Your task to perform on an android device: Open Chrome and go to settings Image 0: 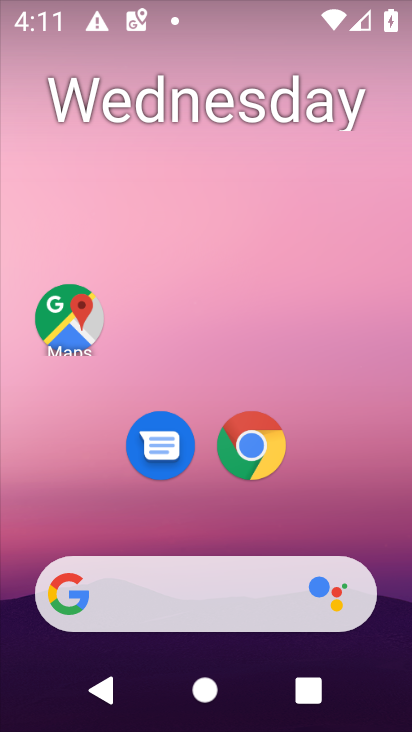
Step 0: click (397, 534)
Your task to perform on an android device: Open Chrome and go to settings Image 1: 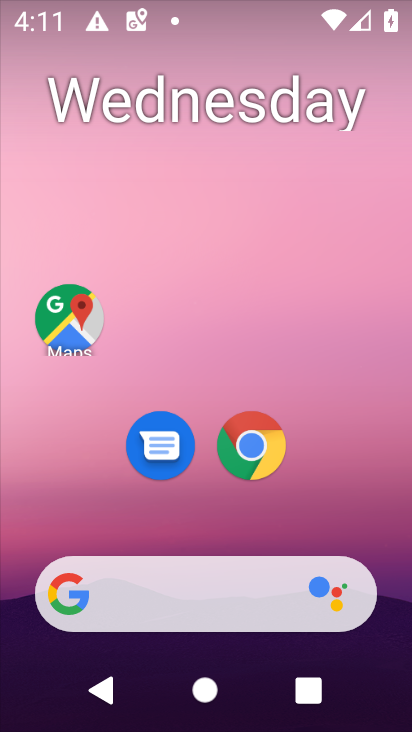
Step 1: drag from (355, 499) to (335, 0)
Your task to perform on an android device: Open Chrome and go to settings Image 2: 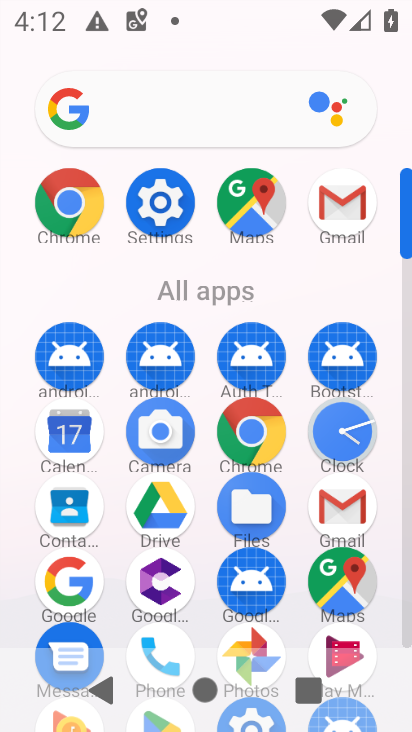
Step 2: click (255, 430)
Your task to perform on an android device: Open Chrome and go to settings Image 3: 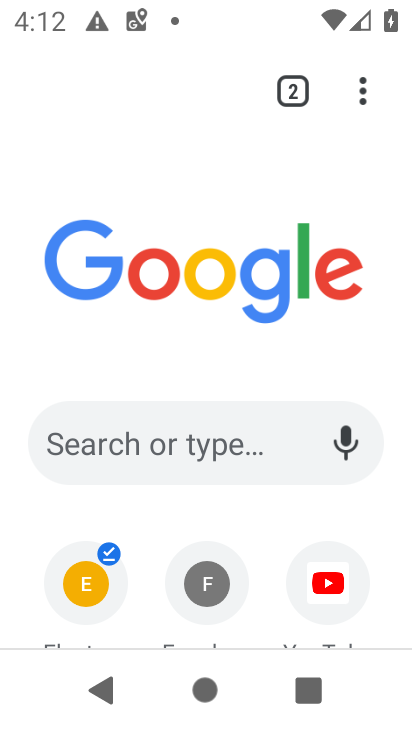
Step 3: task complete